Your task to perform on an android device: turn on the 24-hour format for clock Image 0: 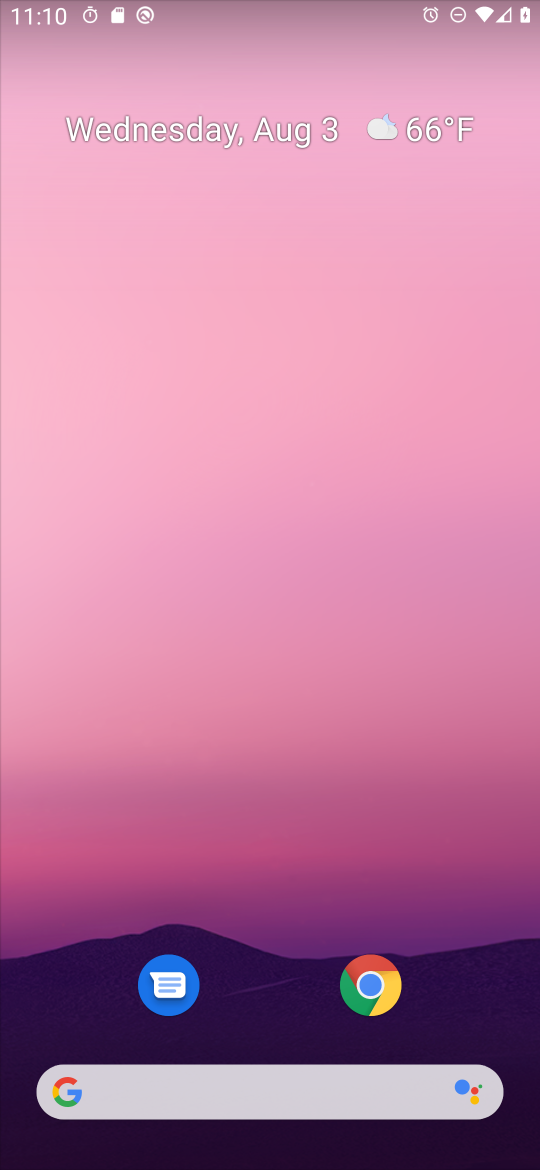
Step 0: drag from (271, 923) to (264, 380)
Your task to perform on an android device: turn on the 24-hour format for clock Image 1: 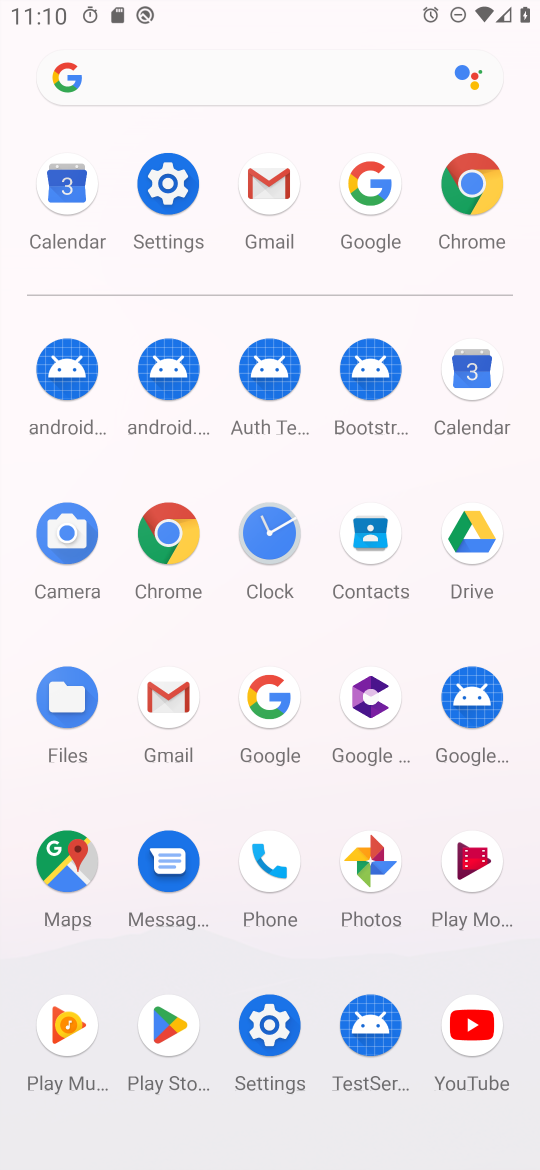
Step 1: click (275, 553)
Your task to perform on an android device: turn on the 24-hour format for clock Image 2: 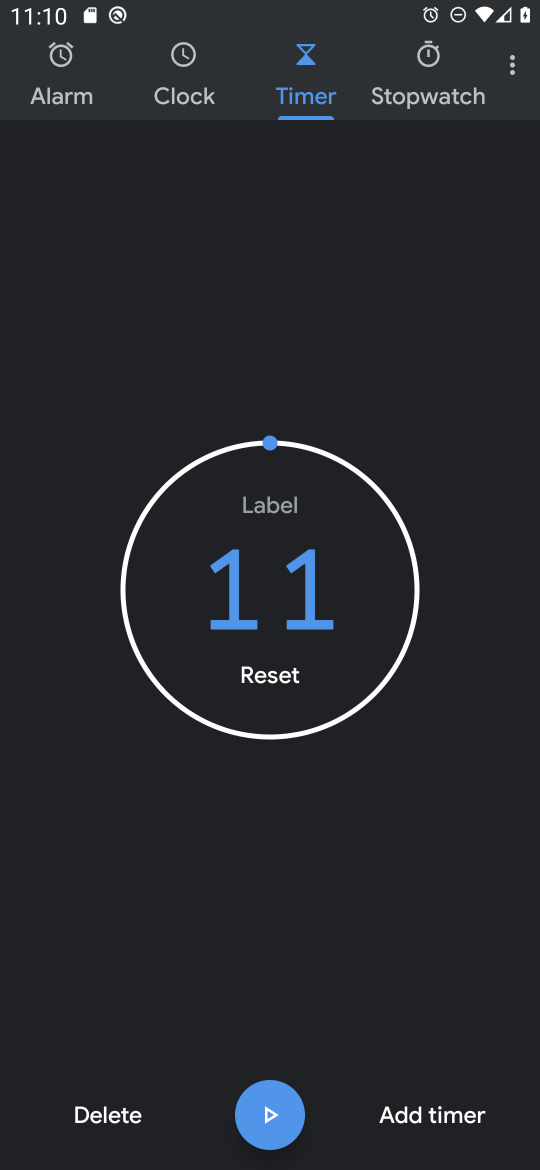
Step 2: click (499, 71)
Your task to perform on an android device: turn on the 24-hour format for clock Image 3: 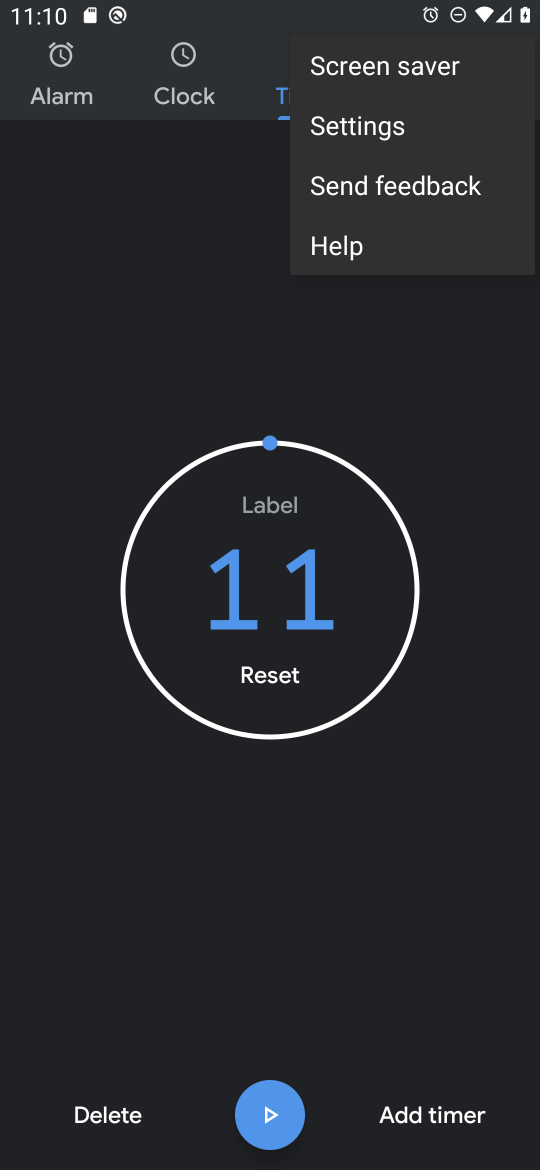
Step 3: click (347, 136)
Your task to perform on an android device: turn on the 24-hour format for clock Image 4: 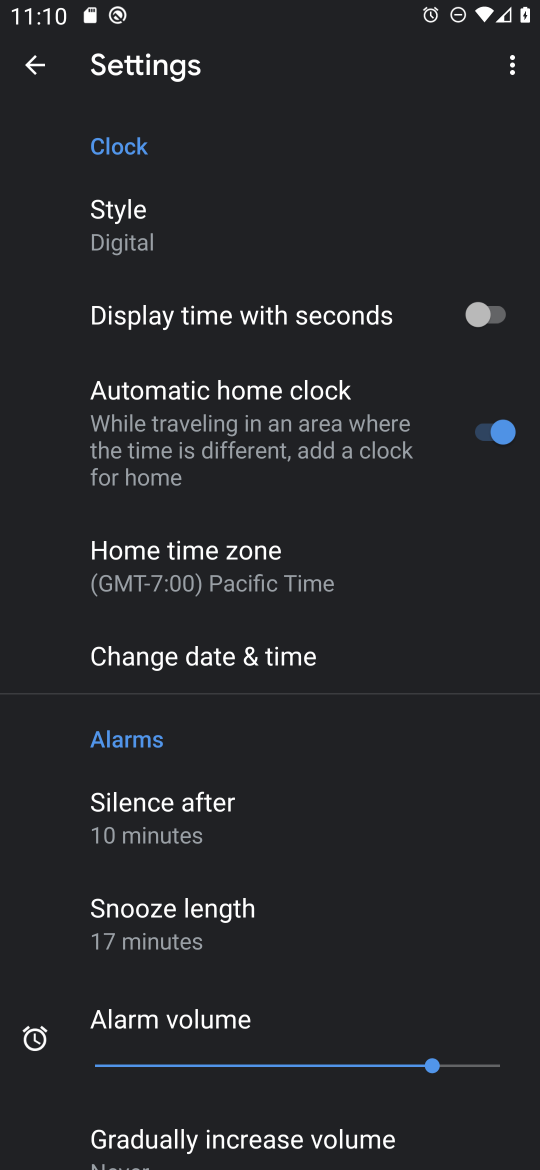
Step 4: click (238, 653)
Your task to perform on an android device: turn on the 24-hour format for clock Image 5: 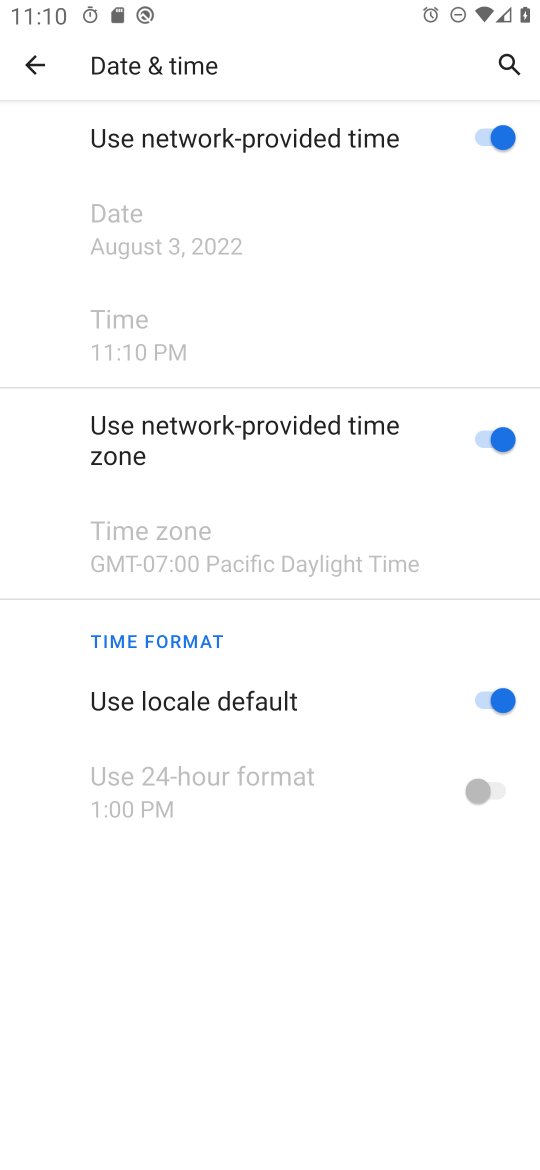
Step 5: click (492, 702)
Your task to perform on an android device: turn on the 24-hour format for clock Image 6: 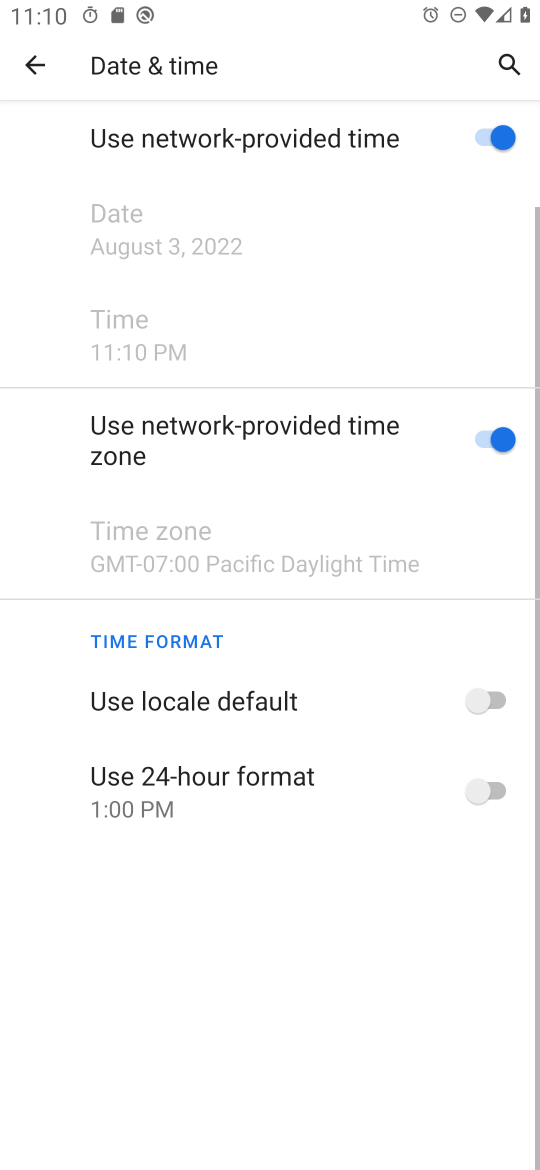
Step 6: click (501, 794)
Your task to perform on an android device: turn on the 24-hour format for clock Image 7: 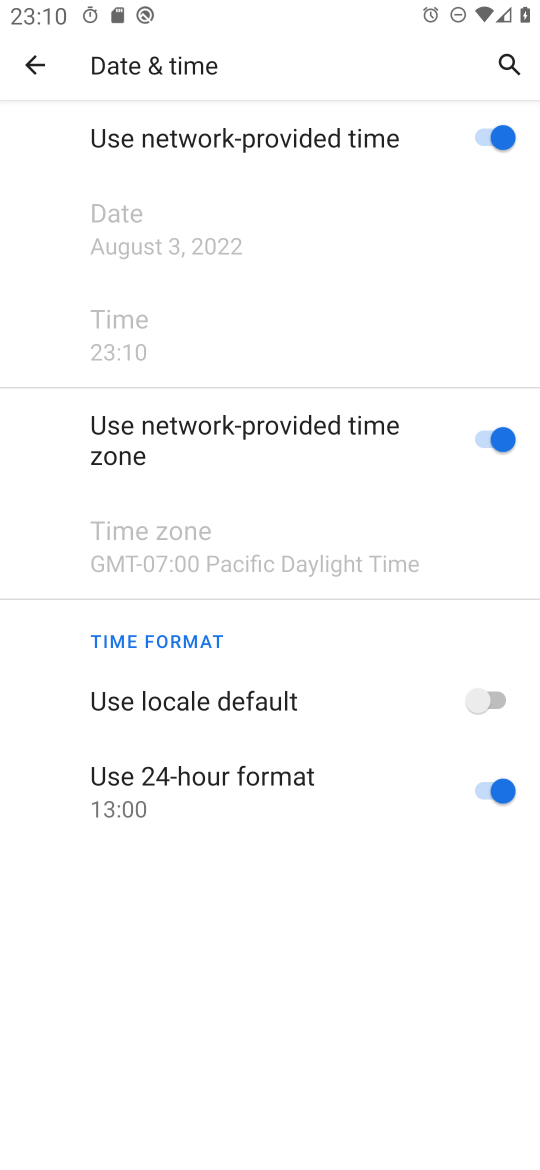
Step 7: task complete